Your task to perform on an android device: What's on my calendar tomorrow? Image 0: 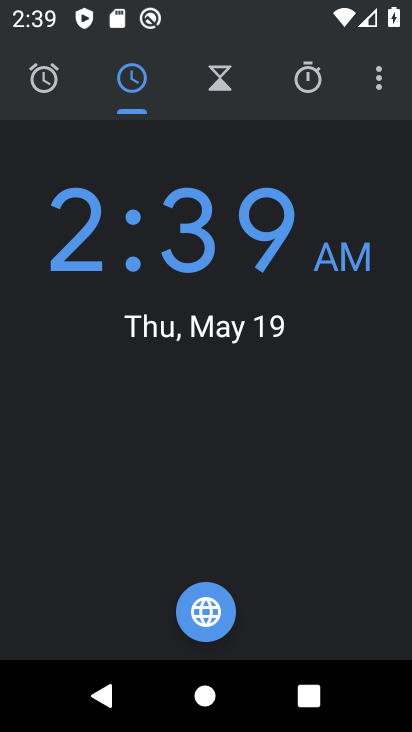
Step 0: press home button
Your task to perform on an android device: What's on my calendar tomorrow? Image 1: 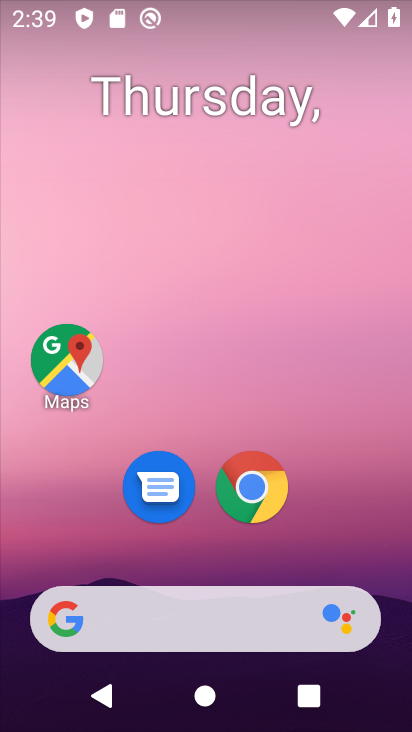
Step 1: drag from (382, 454) to (368, 37)
Your task to perform on an android device: What's on my calendar tomorrow? Image 2: 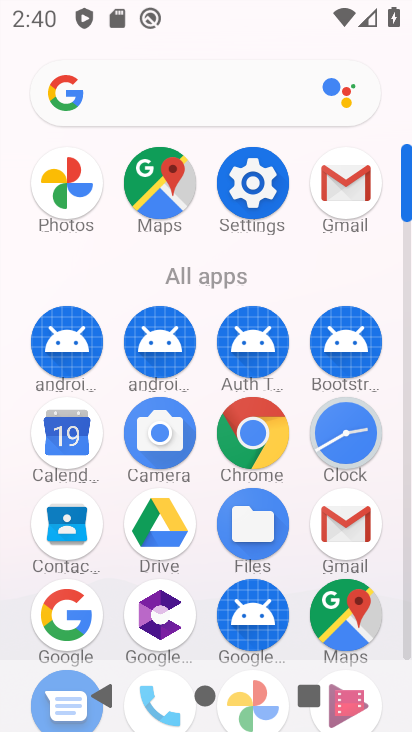
Step 2: click (67, 421)
Your task to perform on an android device: What's on my calendar tomorrow? Image 3: 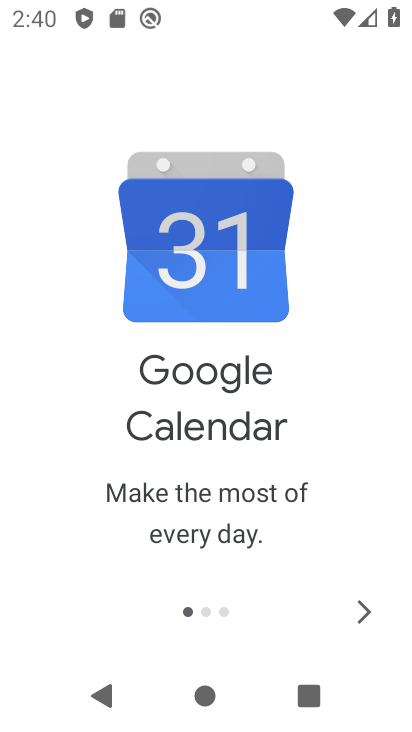
Step 3: click (358, 606)
Your task to perform on an android device: What's on my calendar tomorrow? Image 4: 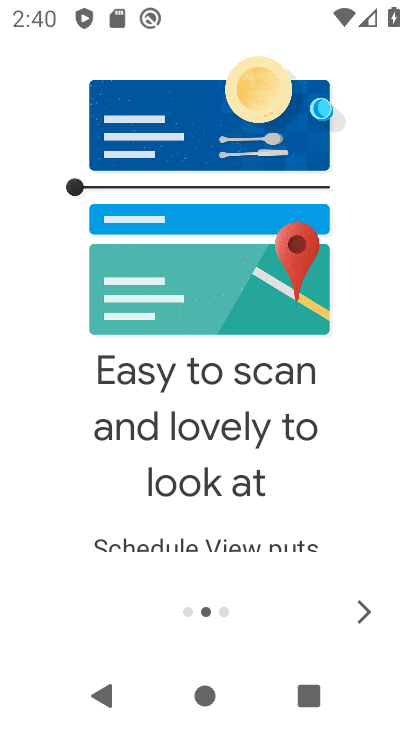
Step 4: click (358, 605)
Your task to perform on an android device: What's on my calendar tomorrow? Image 5: 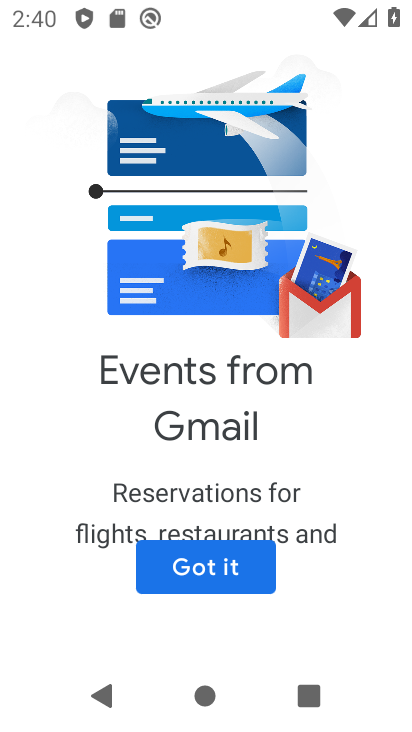
Step 5: click (216, 557)
Your task to perform on an android device: What's on my calendar tomorrow? Image 6: 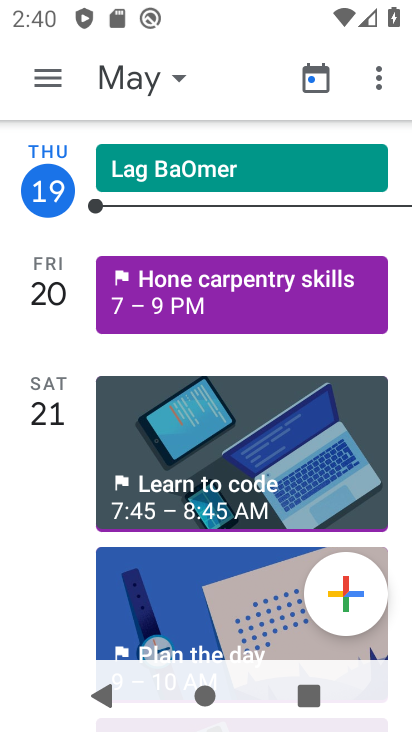
Step 6: click (139, 75)
Your task to perform on an android device: What's on my calendar tomorrow? Image 7: 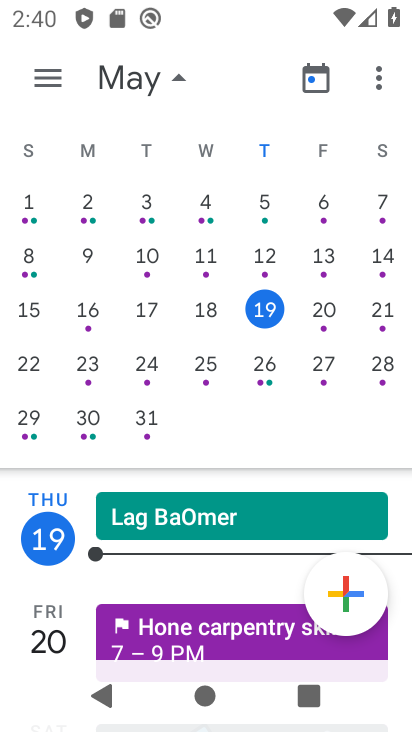
Step 7: click (326, 313)
Your task to perform on an android device: What's on my calendar tomorrow? Image 8: 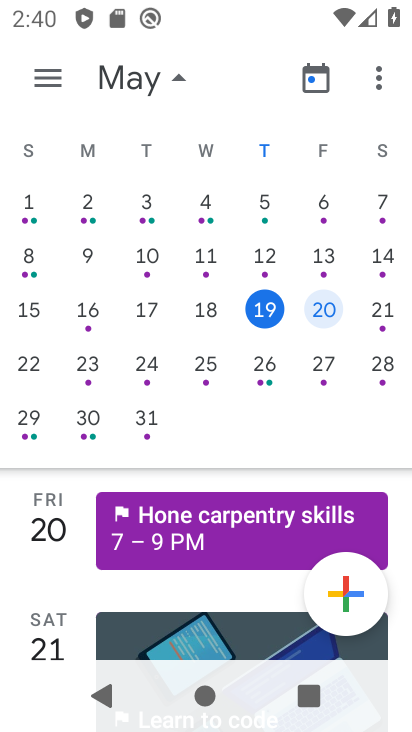
Step 8: task complete